Your task to perform on an android device: check out phone information Image 0: 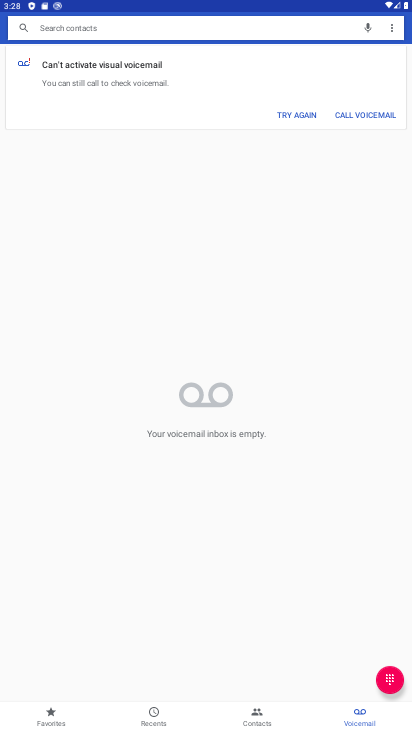
Step 0: press home button
Your task to perform on an android device: check out phone information Image 1: 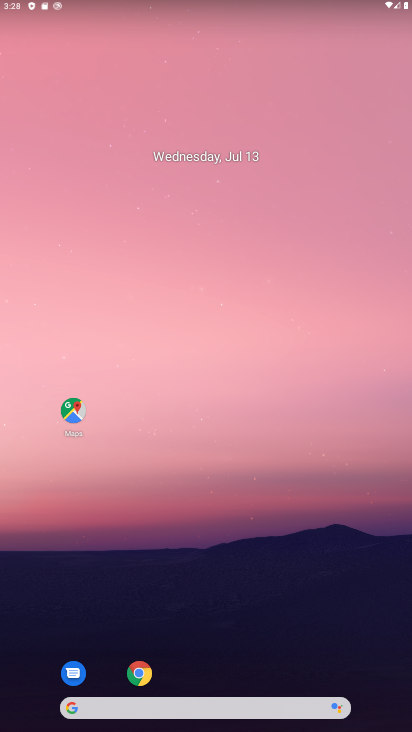
Step 1: drag from (316, 639) to (324, 187)
Your task to perform on an android device: check out phone information Image 2: 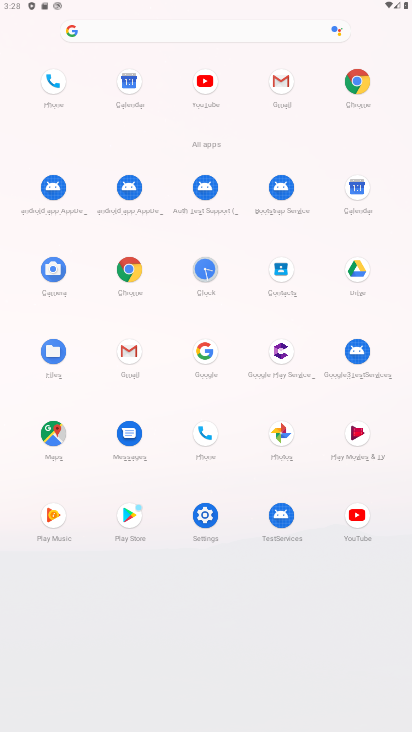
Step 2: click (199, 436)
Your task to perform on an android device: check out phone information Image 3: 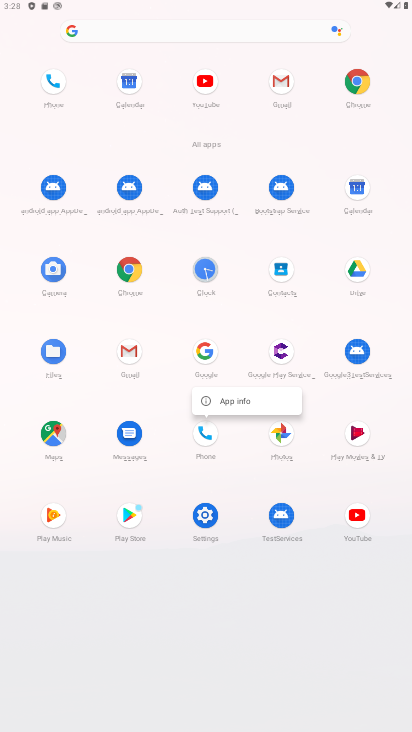
Step 3: click (212, 404)
Your task to perform on an android device: check out phone information Image 4: 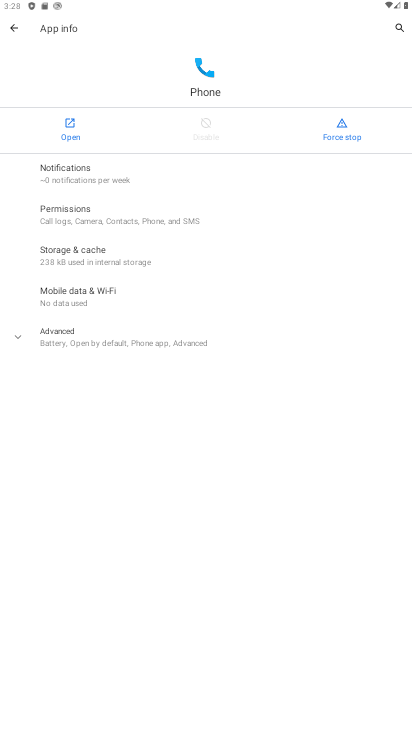
Step 4: task complete